Your task to perform on an android device: Is it going to rain today? Image 0: 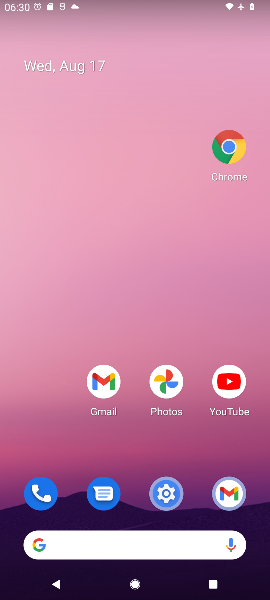
Step 0: click (38, 544)
Your task to perform on an android device: Is it going to rain today? Image 1: 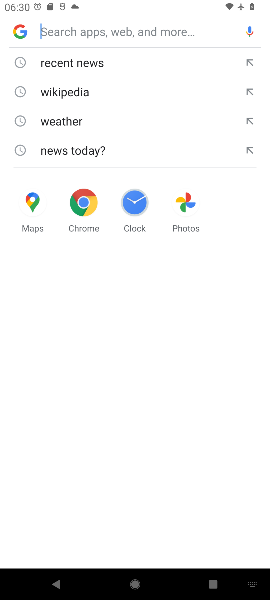
Step 1: type " rain today?"
Your task to perform on an android device: Is it going to rain today? Image 2: 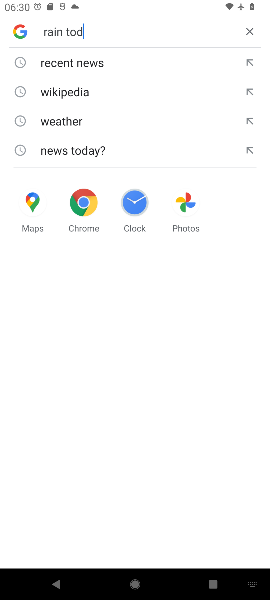
Step 2: press enter
Your task to perform on an android device: Is it going to rain today? Image 3: 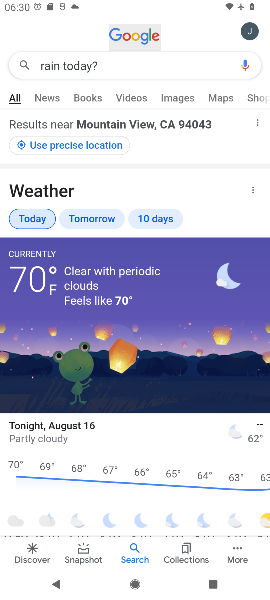
Step 3: task complete